Your task to perform on an android device: search for starred emails in the gmail app Image 0: 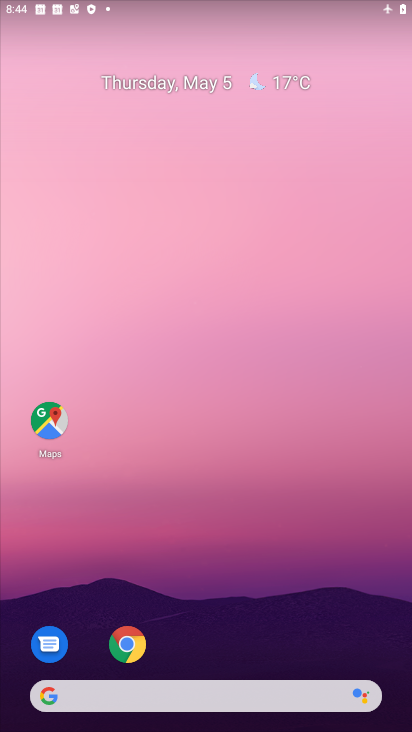
Step 0: click (234, 174)
Your task to perform on an android device: search for starred emails in the gmail app Image 1: 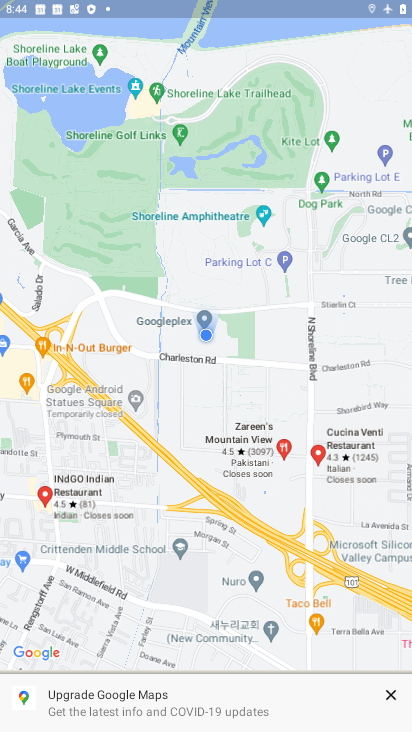
Step 1: press home button
Your task to perform on an android device: search for starred emails in the gmail app Image 2: 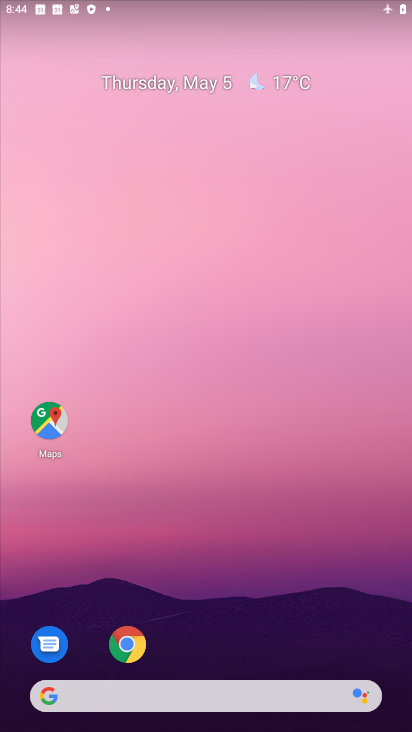
Step 2: drag from (197, 616) to (253, 77)
Your task to perform on an android device: search for starred emails in the gmail app Image 3: 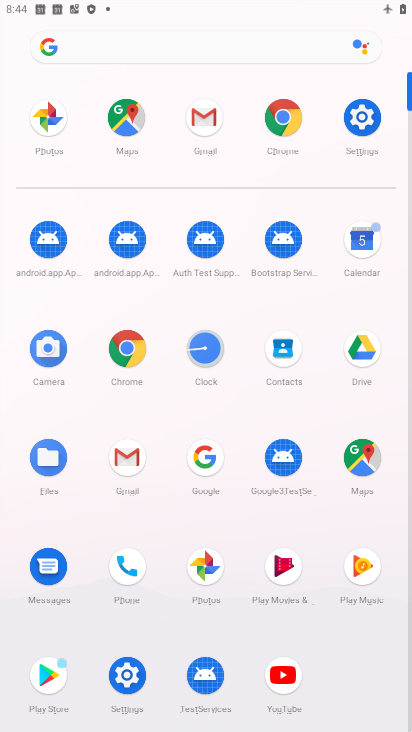
Step 3: click (124, 446)
Your task to perform on an android device: search for starred emails in the gmail app Image 4: 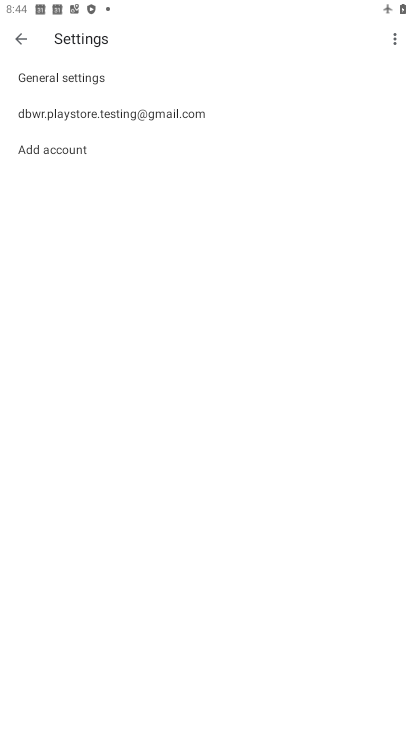
Step 4: click (111, 116)
Your task to perform on an android device: search for starred emails in the gmail app Image 5: 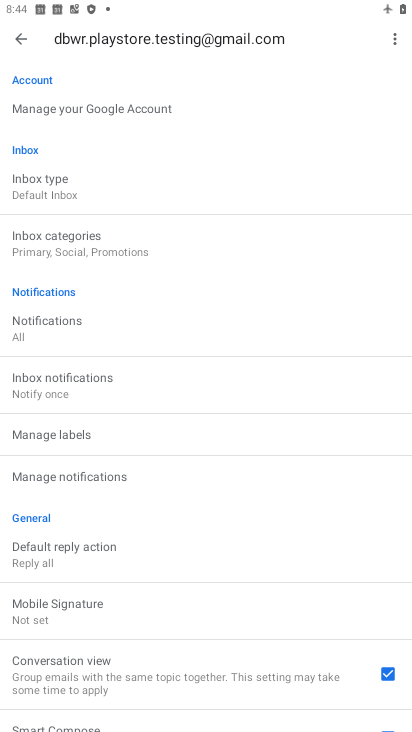
Step 5: click (22, 46)
Your task to perform on an android device: search for starred emails in the gmail app Image 6: 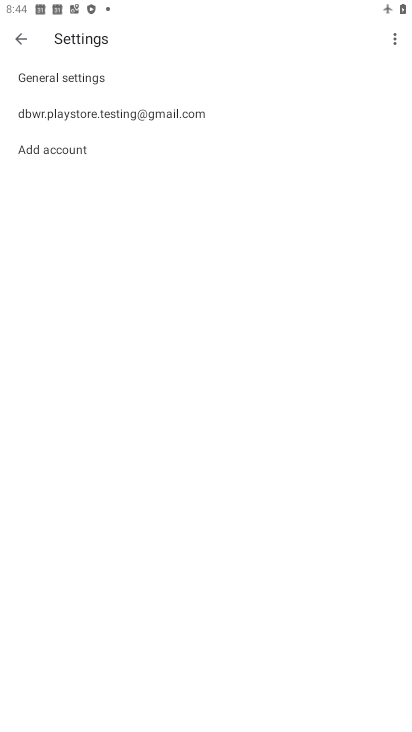
Step 6: click (19, 43)
Your task to perform on an android device: search for starred emails in the gmail app Image 7: 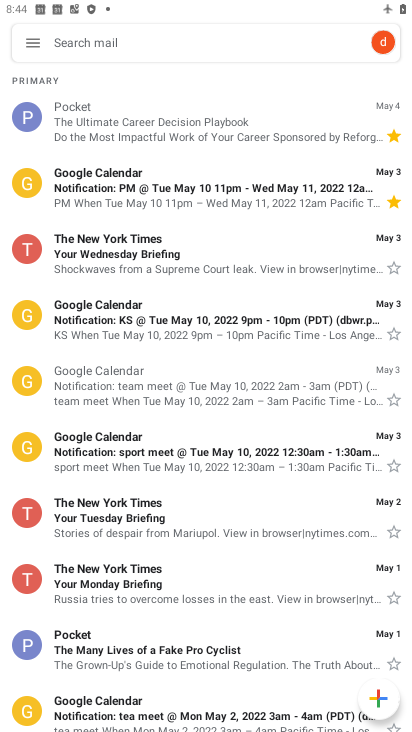
Step 7: click (19, 45)
Your task to perform on an android device: search for starred emails in the gmail app Image 8: 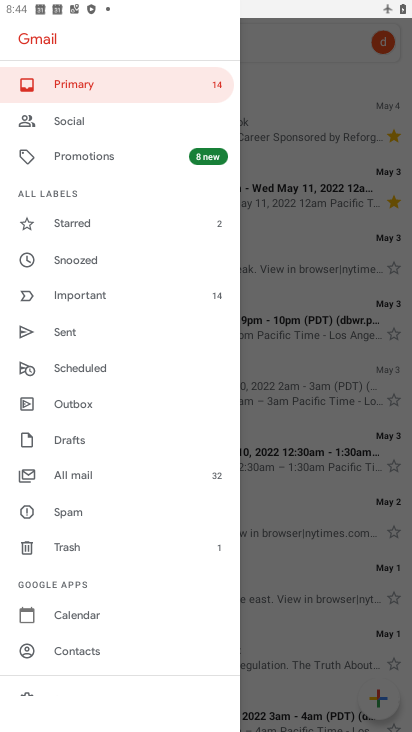
Step 8: click (84, 220)
Your task to perform on an android device: search for starred emails in the gmail app Image 9: 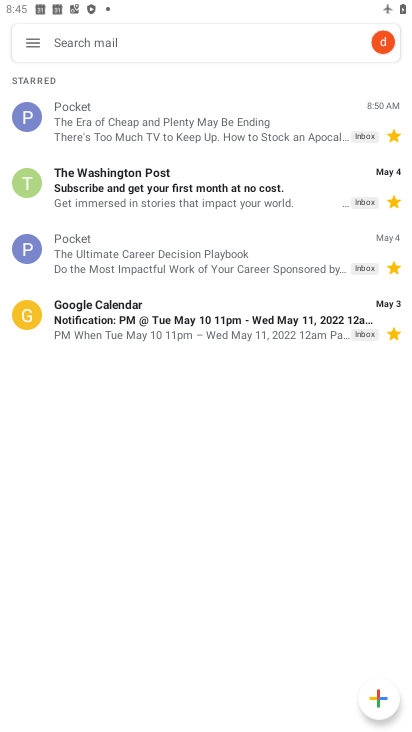
Step 9: click (156, 233)
Your task to perform on an android device: search for starred emails in the gmail app Image 10: 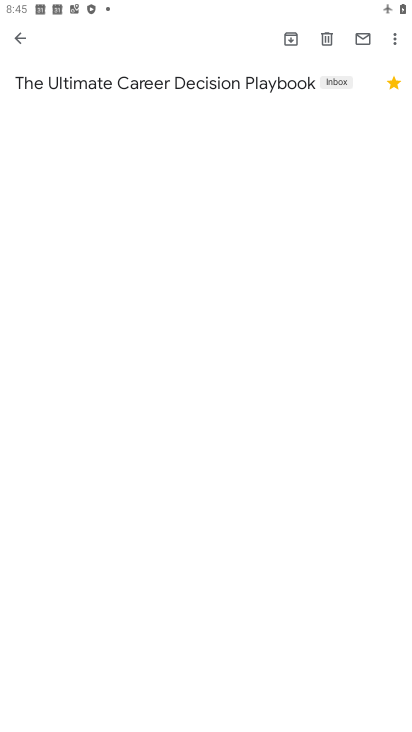
Step 10: task complete